Your task to perform on an android device: manage bookmarks in the chrome app Image 0: 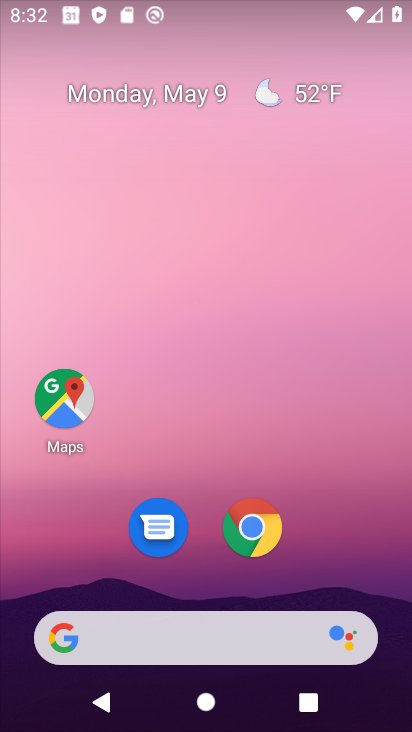
Step 0: click (251, 530)
Your task to perform on an android device: manage bookmarks in the chrome app Image 1: 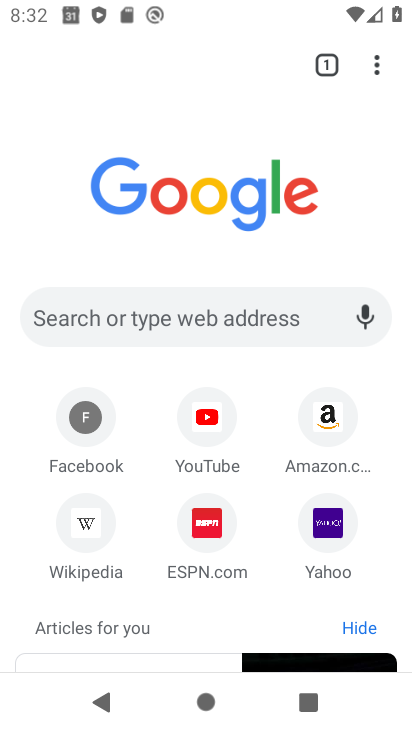
Step 1: click (369, 70)
Your task to perform on an android device: manage bookmarks in the chrome app Image 2: 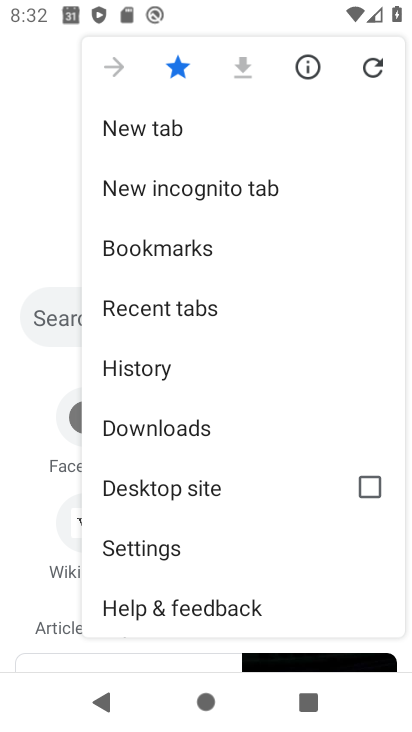
Step 2: click (156, 261)
Your task to perform on an android device: manage bookmarks in the chrome app Image 3: 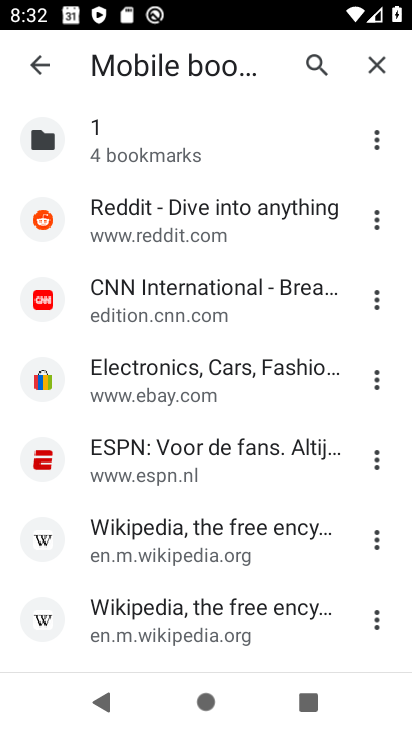
Step 3: click (373, 217)
Your task to perform on an android device: manage bookmarks in the chrome app Image 4: 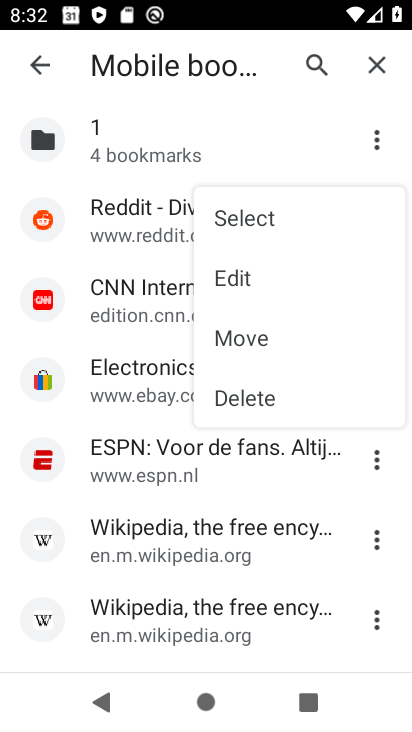
Step 4: click (256, 404)
Your task to perform on an android device: manage bookmarks in the chrome app Image 5: 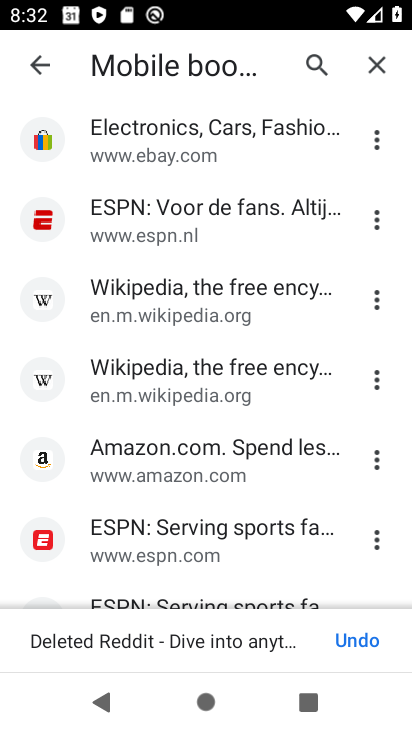
Step 5: task complete